Your task to perform on an android device: Set the phone to "Do not disturb". Image 0: 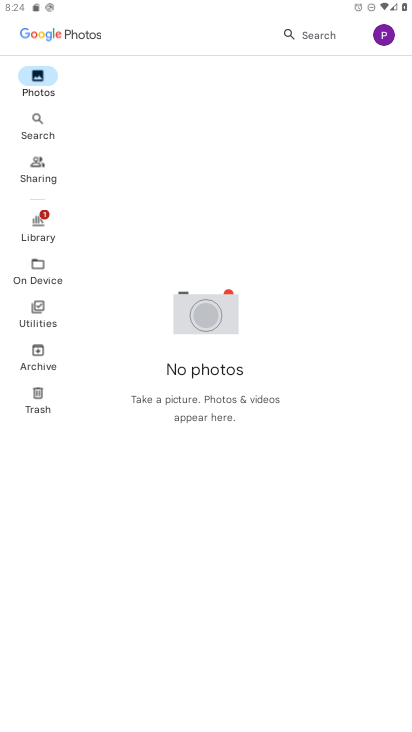
Step 0: press home button
Your task to perform on an android device: Set the phone to "Do not disturb". Image 1: 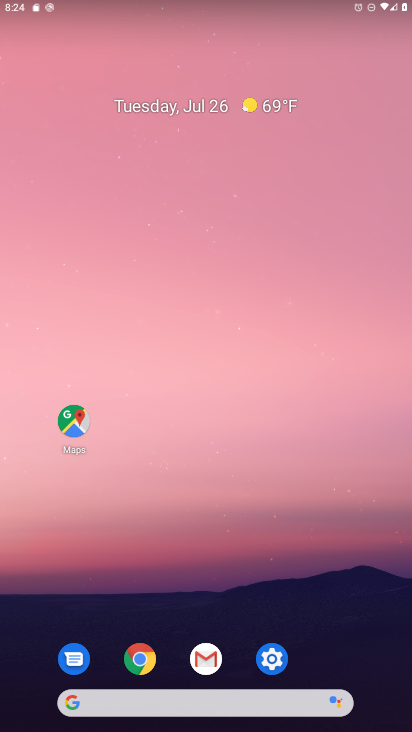
Step 1: click (263, 660)
Your task to perform on an android device: Set the phone to "Do not disturb". Image 2: 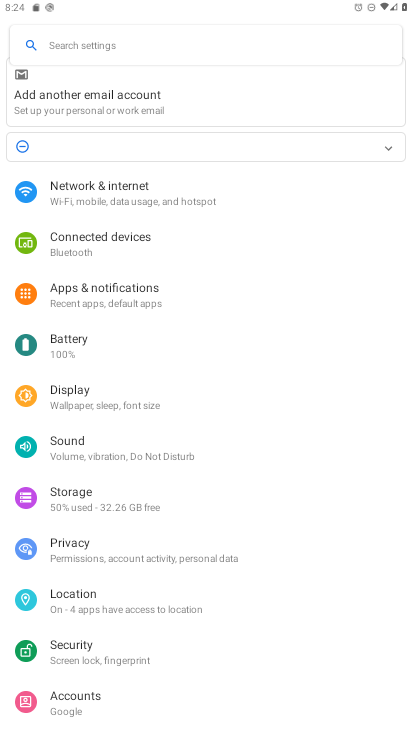
Step 2: click (88, 48)
Your task to perform on an android device: Set the phone to "Do not disturb". Image 3: 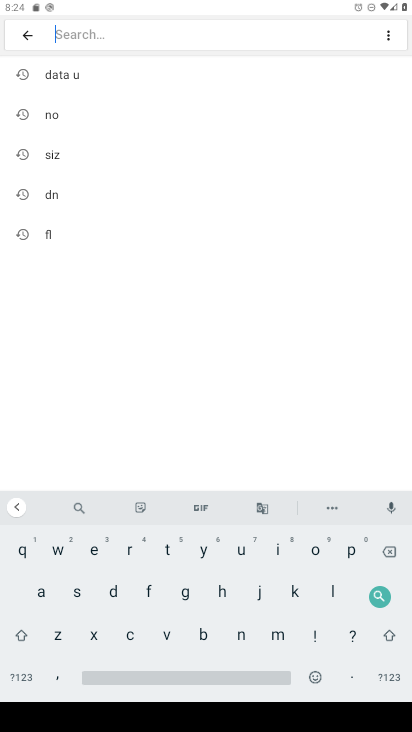
Step 3: click (104, 590)
Your task to perform on an android device: Set the phone to "Do not disturb". Image 4: 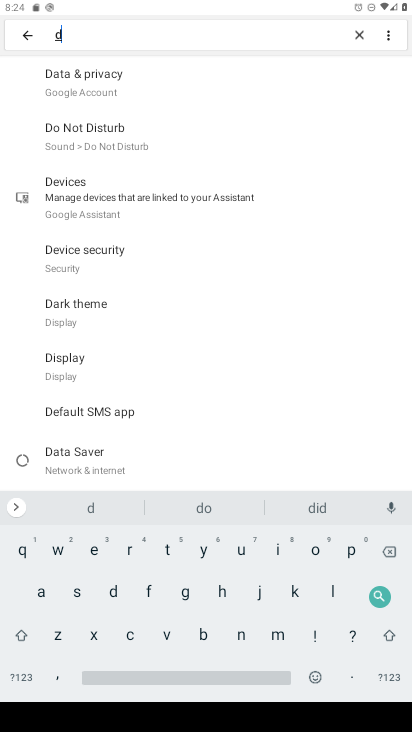
Step 4: click (238, 634)
Your task to perform on an android device: Set the phone to "Do not disturb". Image 5: 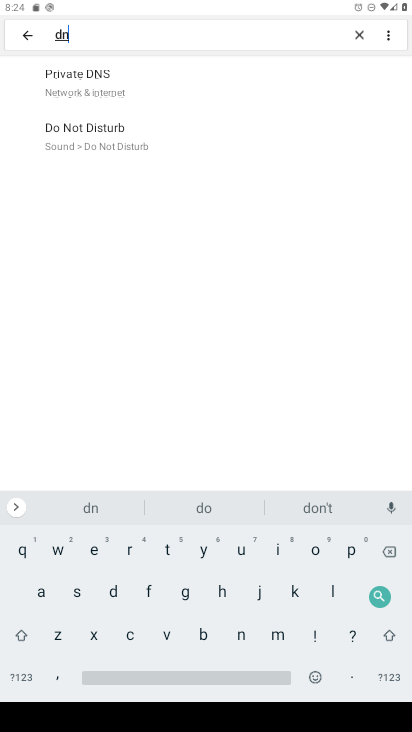
Step 5: click (106, 592)
Your task to perform on an android device: Set the phone to "Do not disturb". Image 6: 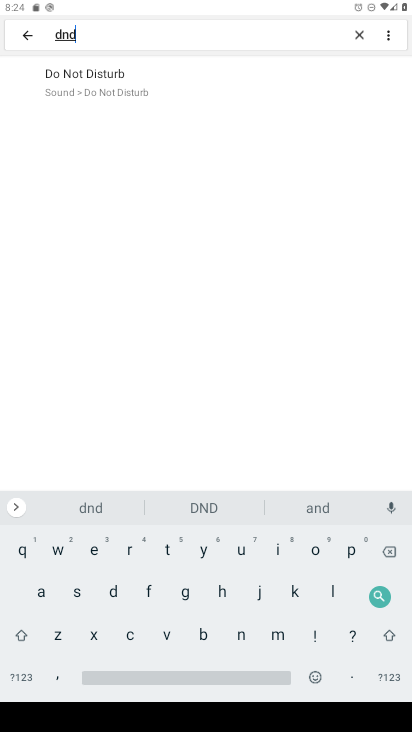
Step 6: click (89, 78)
Your task to perform on an android device: Set the phone to "Do not disturb". Image 7: 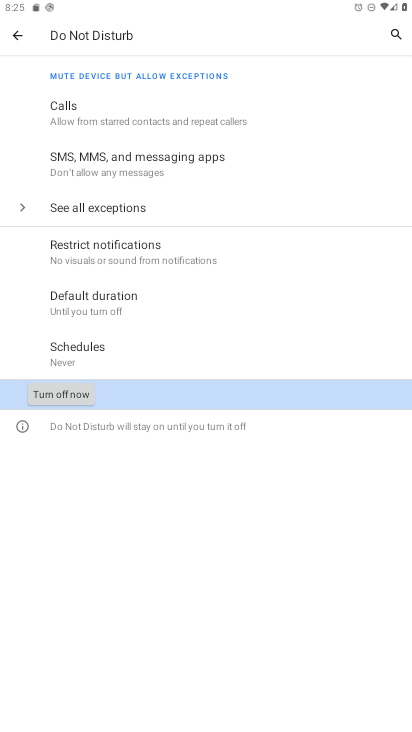
Step 7: task complete